Your task to perform on an android device: Go to eBay Image 0: 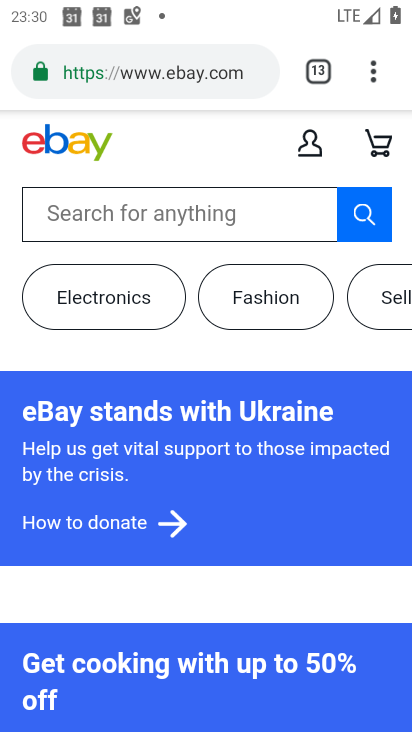
Step 0: drag from (288, 570) to (269, 340)
Your task to perform on an android device: Go to eBay Image 1: 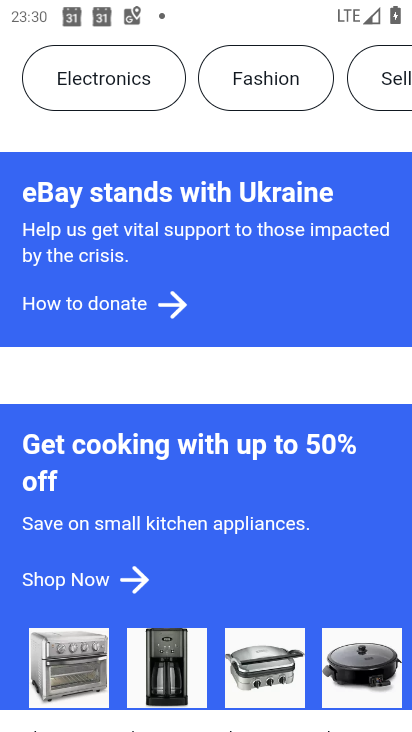
Step 1: task complete